Your task to perform on an android device: snooze an email in the gmail app Image 0: 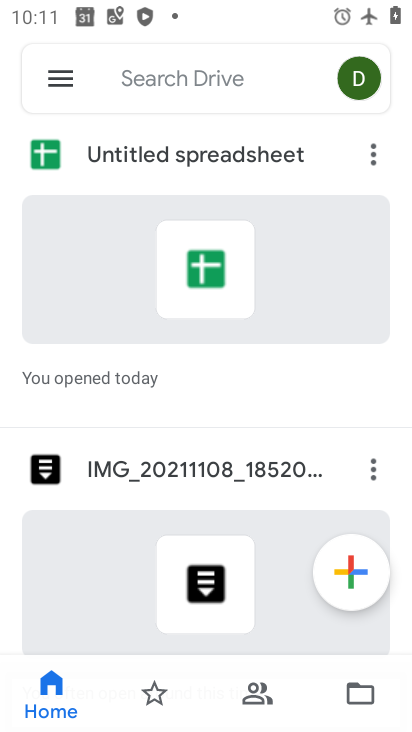
Step 0: press home button
Your task to perform on an android device: snooze an email in the gmail app Image 1: 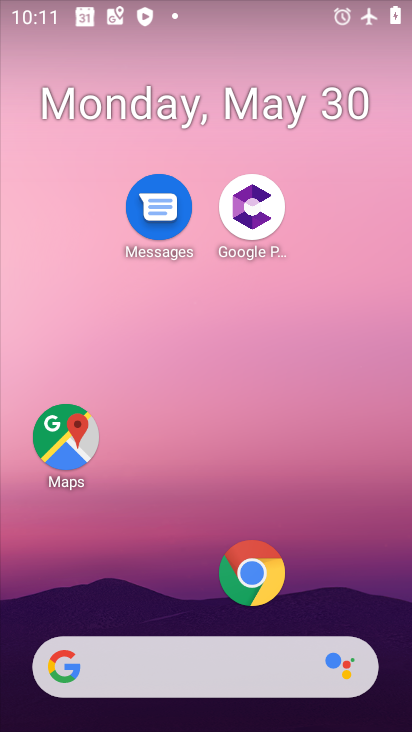
Step 1: drag from (189, 642) to (255, 73)
Your task to perform on an android device: snooze an email in the gmail app Image 2: 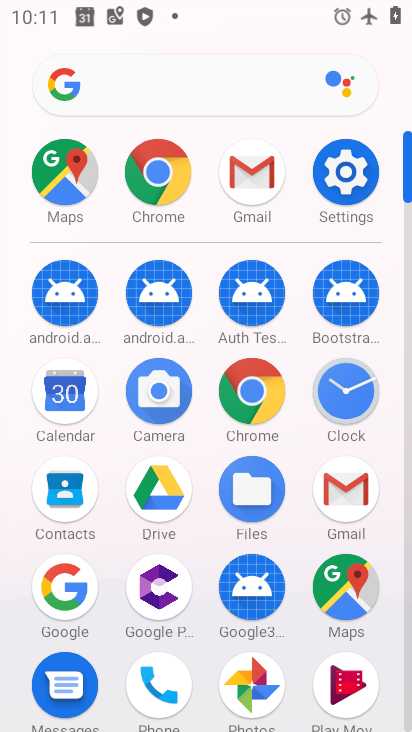
Step 2: click (339, 495)
Your task to perform on an android device: snooze an email in the gmail app Image 3: 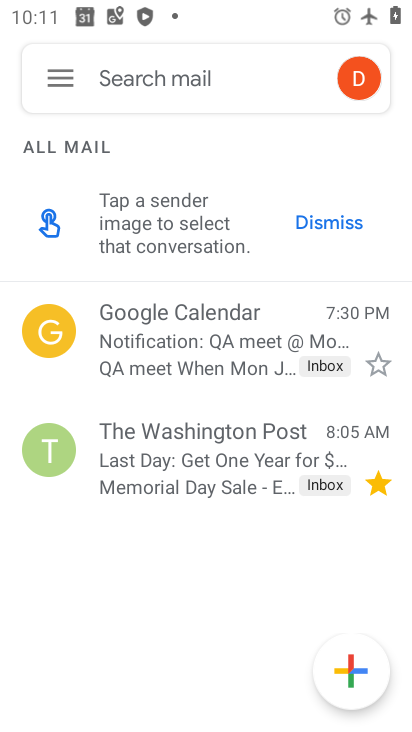
Step 3: click (72, 70)
Your task to perform on an android device: snooze an email in the gmail app Image 4: 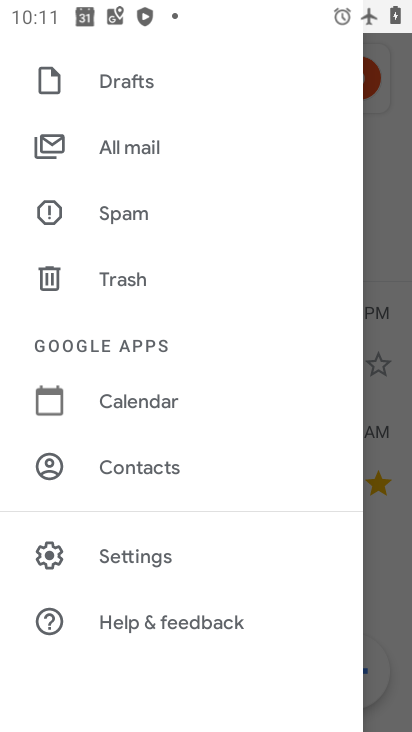
Step 4: click (133, 157)
Your task to perform on an android device: snooze an email in the gmail app Image 5: 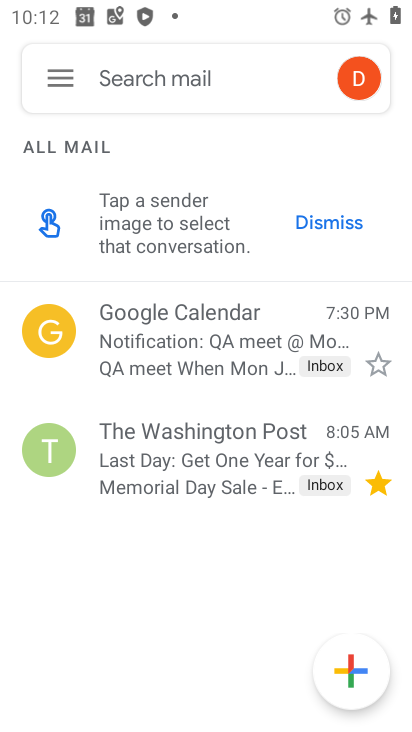
Step 5: click (172, 351)
Your task to perform on an android device: snooze an email in the gmail app Image 6: 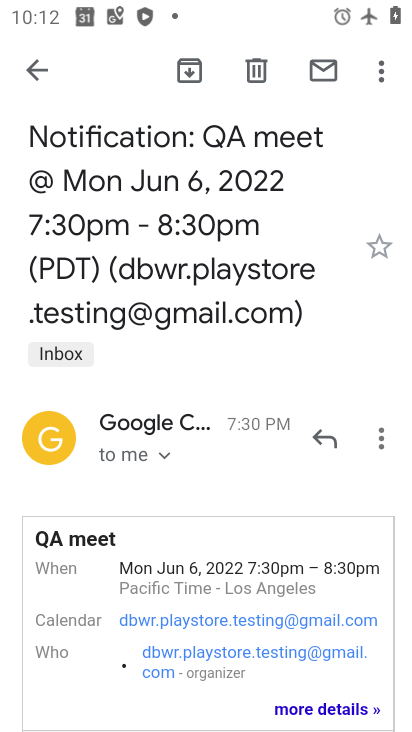
Step 6: click (385, 66)
Your task to perform on an android device: snooze an email in the gmail app Image 7: 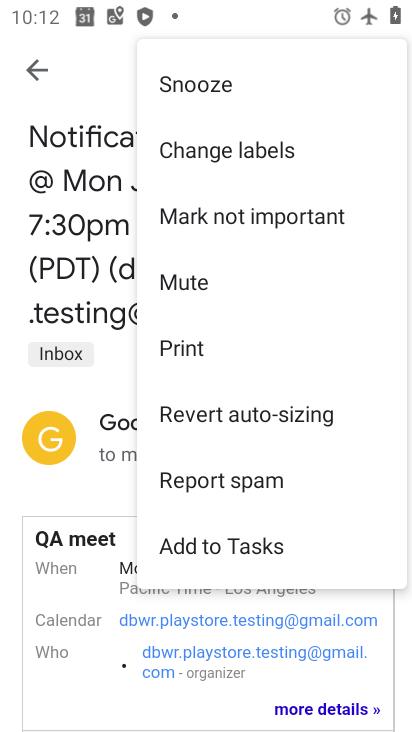
Step 7: click (227, 87)
Your task to perform on an android device: snooze an email in the gmail app Image 8: 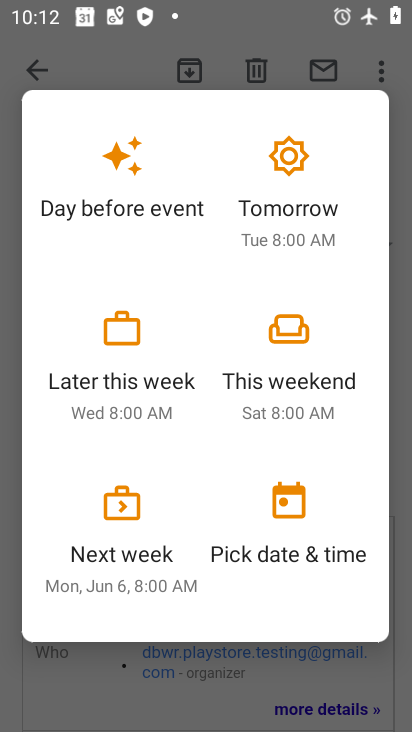
Step 8: click (286, 192)
Your task to perform on an android device: snooze an email in the gmail app Image 9: 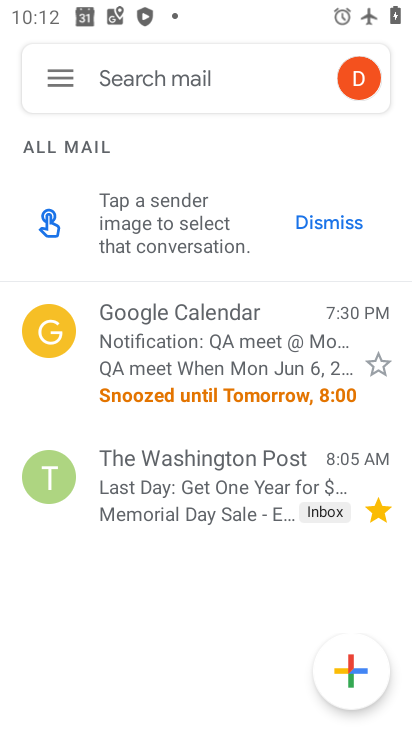
Step 9: task complete